Your task to perform on an android device: Go to ESPN.com Image 0: 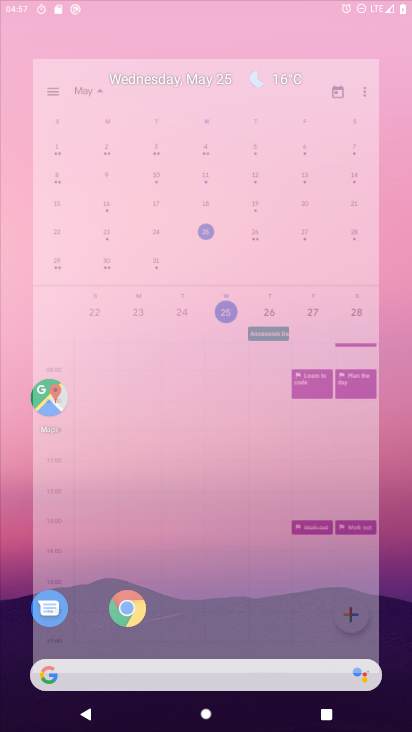
Step 0: drag from (244, 352) to (238, 174)
Your task to perform on an android device: Go to ESPN.com Image 1: 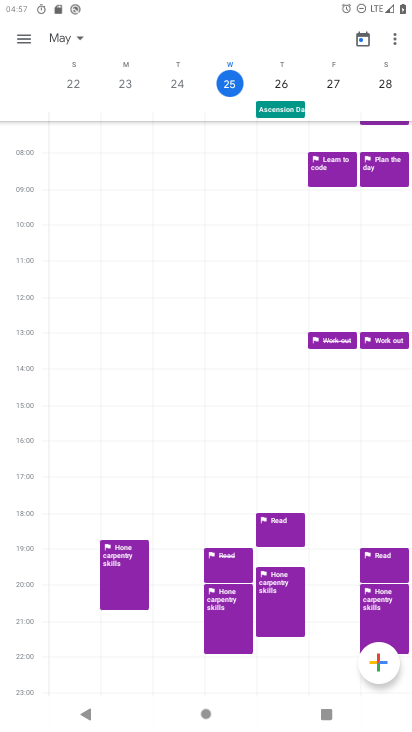
Step 1: press home button
Your task to perform on an android device: Go to ESPN.com Image 2: 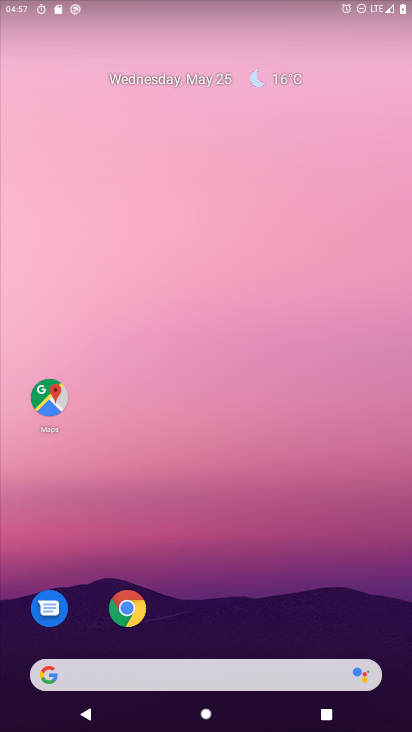
Step 2: drag from (239, 593) to (213, 161)
Your task to perform on an android device: Go to ESPN.com Image 3: 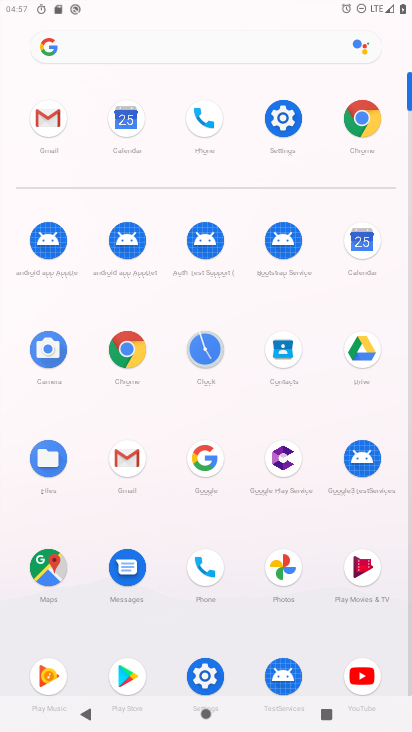
Step 3: click (359, 122)
Your task to perform on an android device: Go to ESPN.com Image 4: 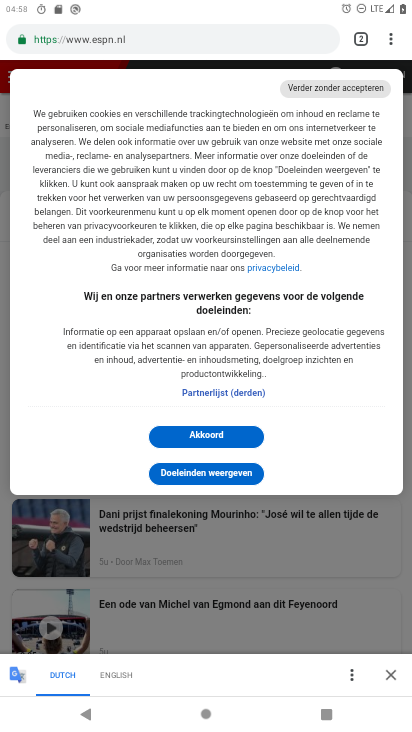
Step 4: task complete